Your task to perform on an android device: Is it going to rain tomorrow? Image 0: 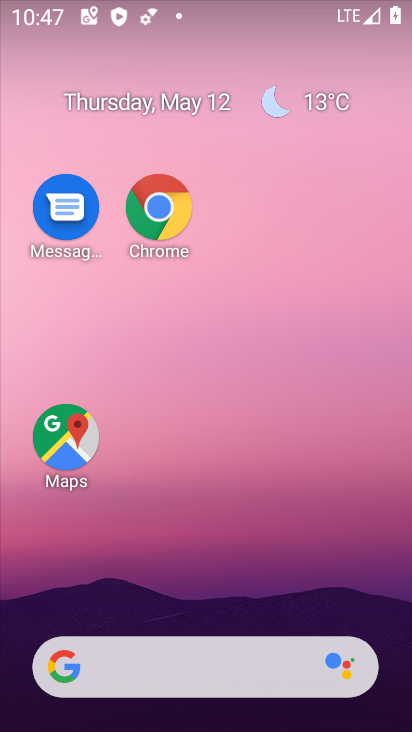
Step 0: drag from (204, 605) to (158, 3)
Your task to perform on an android device: Is it going to rain tomorrow? Image 1: 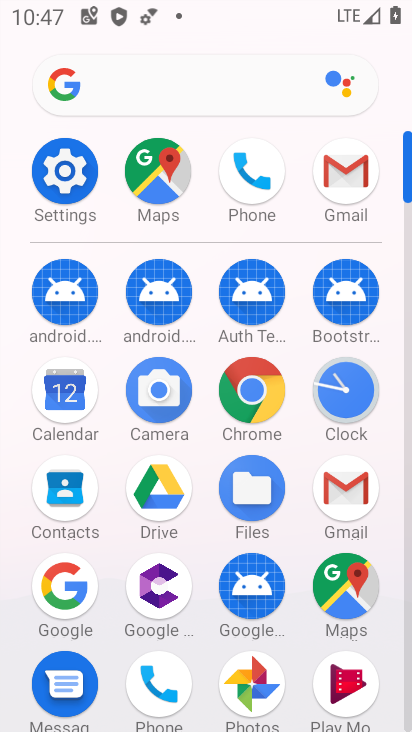
Step 1: click (48, 606)
Your task to perform on an android device: Is it going to rain tomorrow? Image 2: 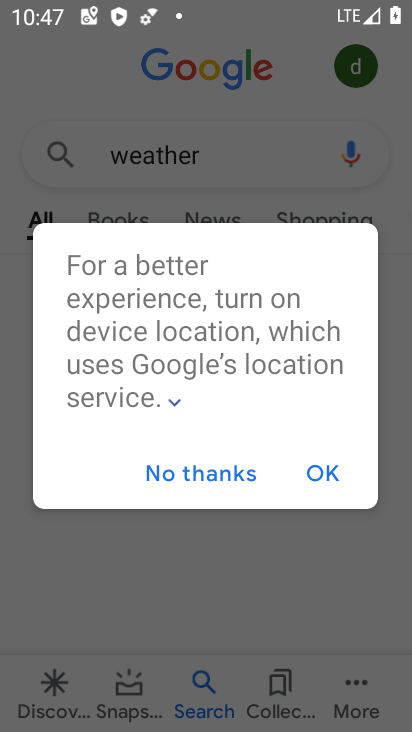
Step 2: click (333, 461)
Your task to perform on an android device: Is it going to rain tomorrow? Image 3: 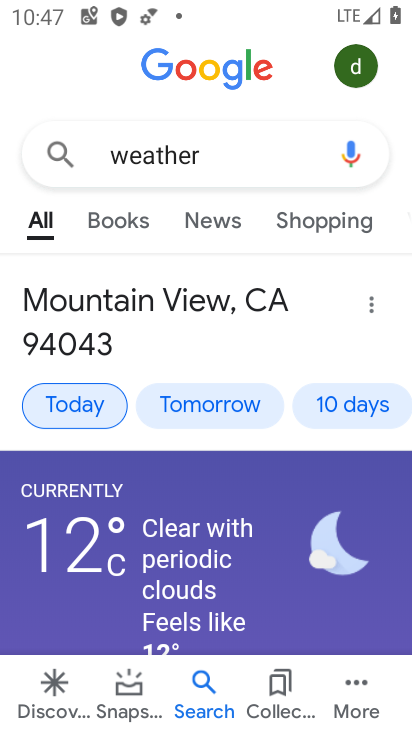
Step 3: click (254, 406)
Your task to perform on an android device: Is it going to rain tomorrow? Image 4: 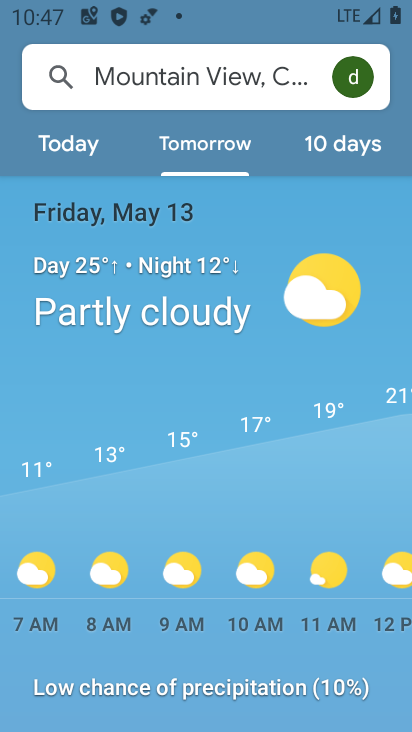
Step 4: task complete